Your task to perform on an android device: Open sound settings Image 0: 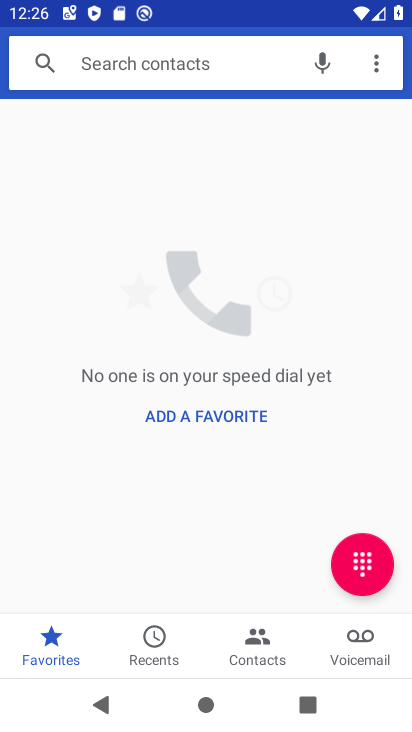
Step 0: press home button
Your task to perform on an android device: Open sound settings Image 1: 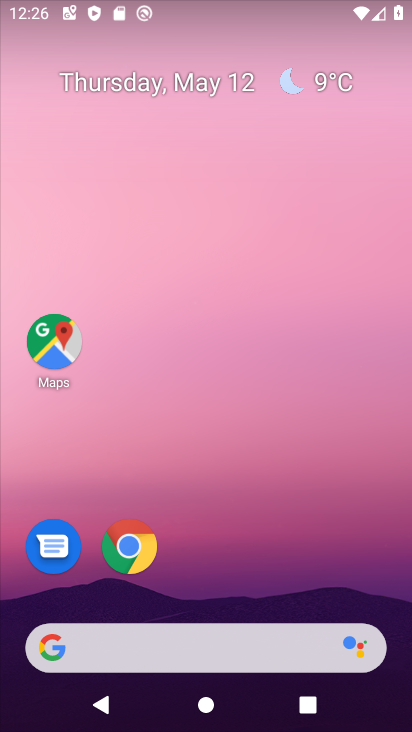
Step 1: drag from (285, 585) to (308, 53)
Your task to perform on an android device: Open sound settings Image 2: 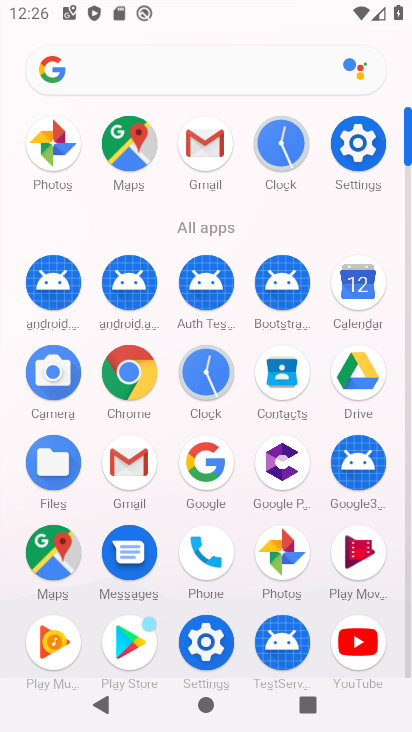
Step 2: click (354, 158)
Your task to perform on an android device: Open sound settings Image 3: 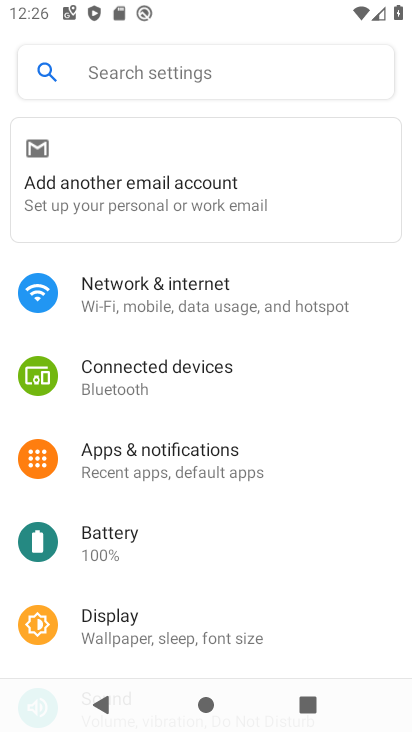
Step 3: drag from (172, 616) to (224, 280)
Your task to perform on an android device: Open sound settings Image 4: 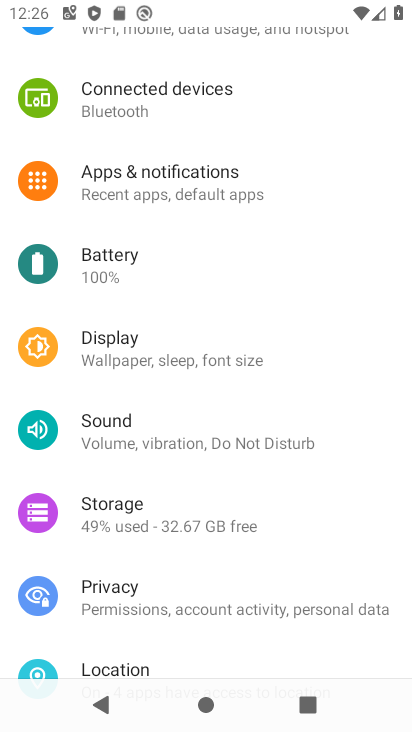
Step 4: click (229, 448)
Your task to perform on an android device: Open sound settings Image 5: 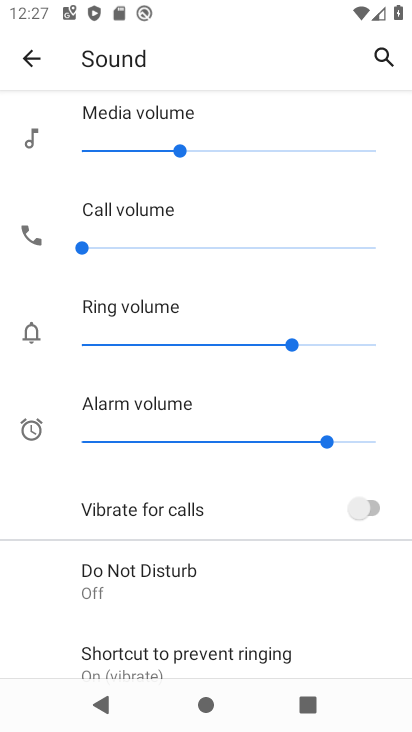
Step 5: task complete